Your task to perform on an android device: Go to Google Image 0: 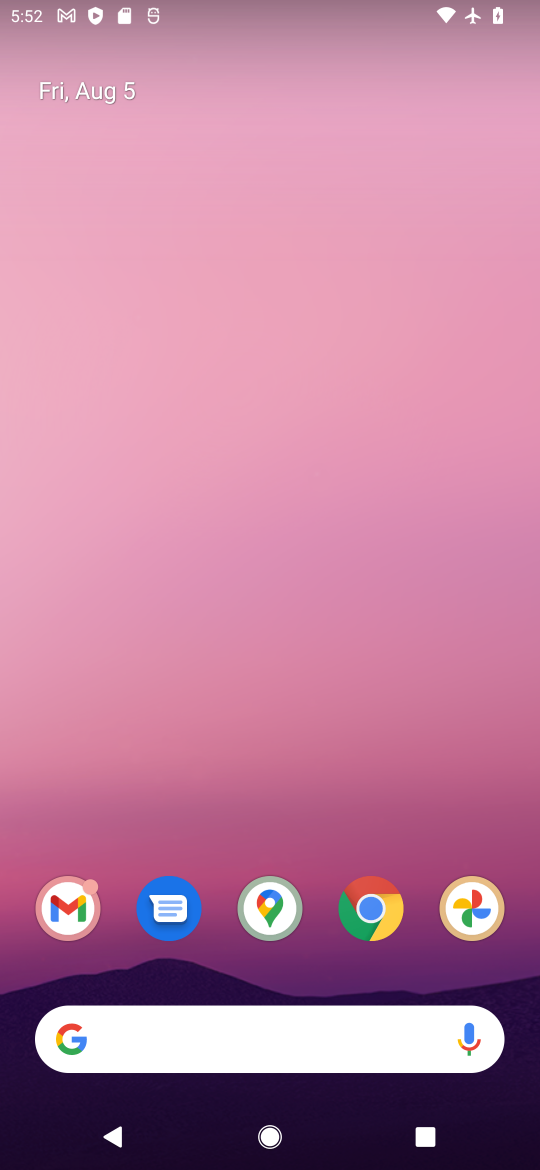
Step 0: drag from (229, 971) to (302, 110)
Your task to perform on an android device: Go to Google Image 1: 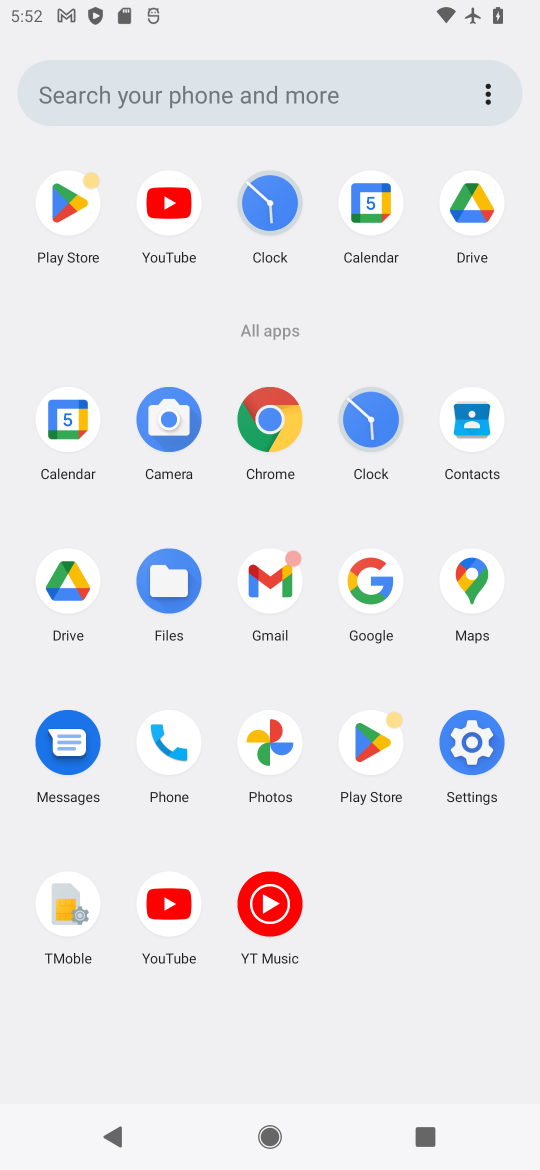
Step 1: click (356, 566)
Your task to perform on an android device: Go to Google Image 2: 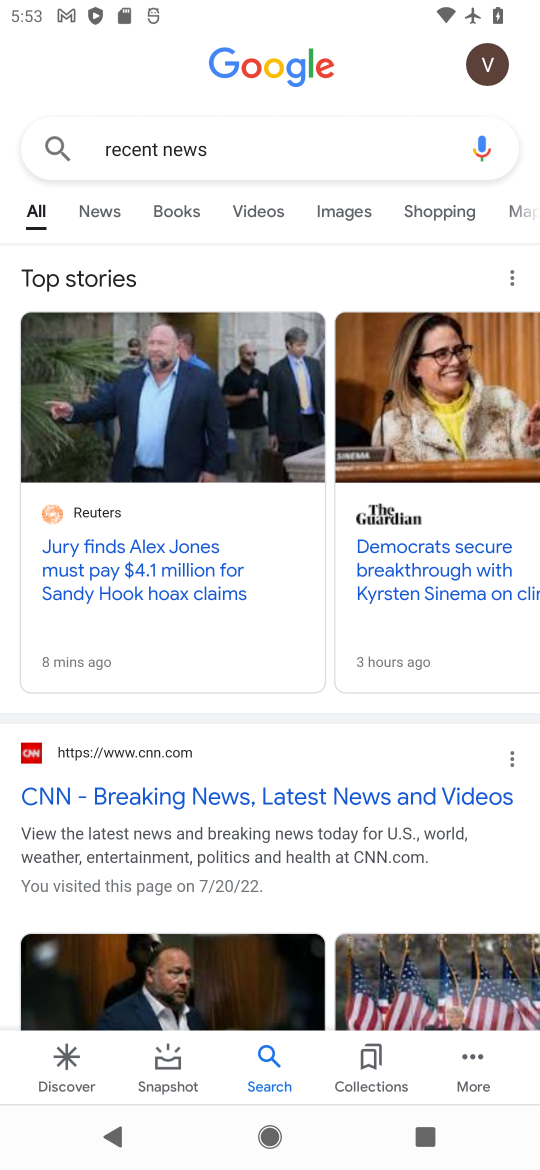
Step 2: task complete